Your task to perform on an android device: delete location history Image 0: 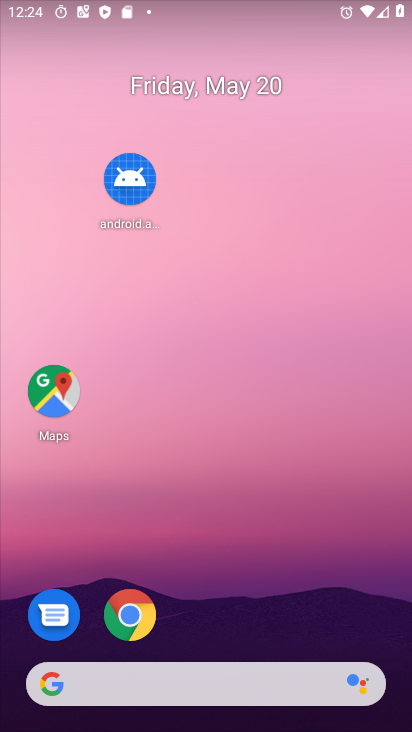
Step 0: drag from (304, 595) to (261, 110)
Your task to perform on an android device: delete location history Image 1: 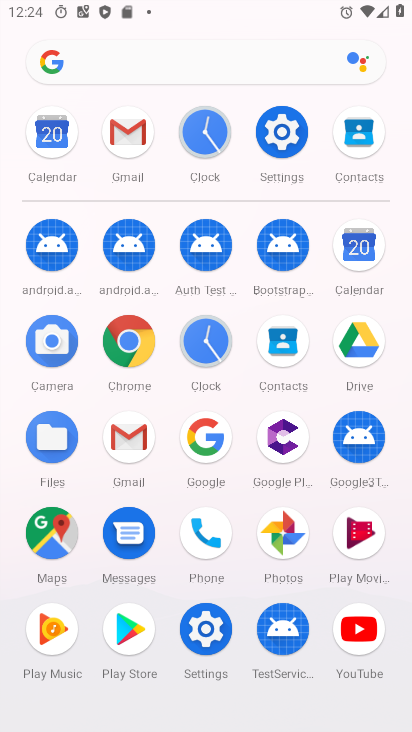
Step 1: click (209, 642)
Your task to perform on an android device: delete location history Image 2: 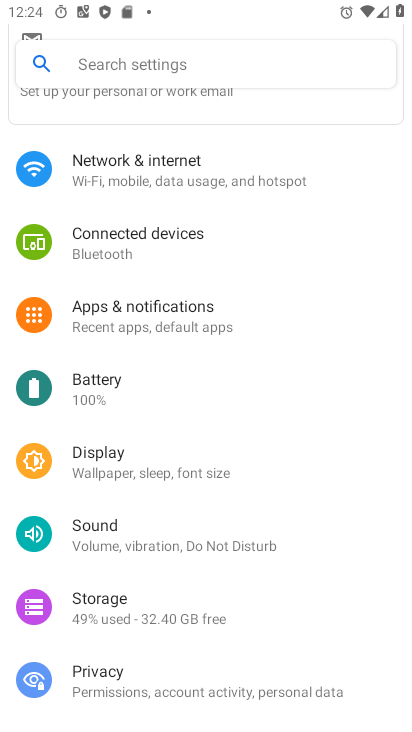
Step 2: drag from (233, 558) to (203, 412)
Your task to perform on an android device: delete location history Image 3: 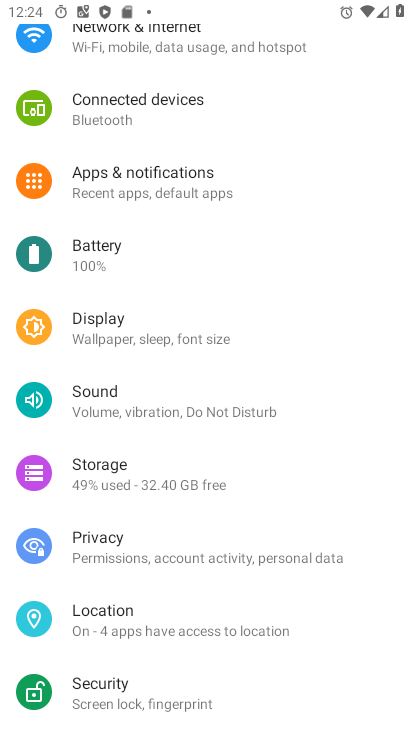
Step 3: click (103, 605)
Your task to perform on an android device: delete location history Image 4: 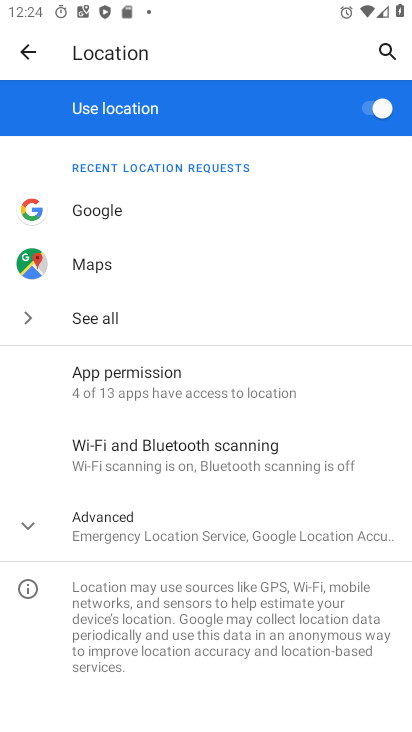
Step 4: click (213, 540)
Your task to perform on an android device: delete location history Image 5: 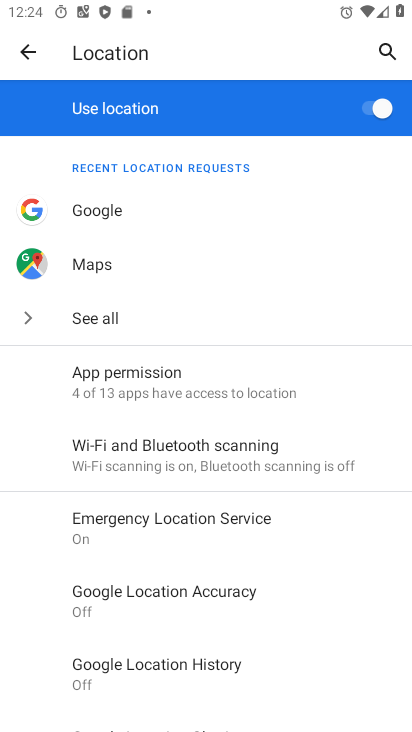
Step 5: click (266, 668)
Your task to perform on an android device: delete location history Image 6: 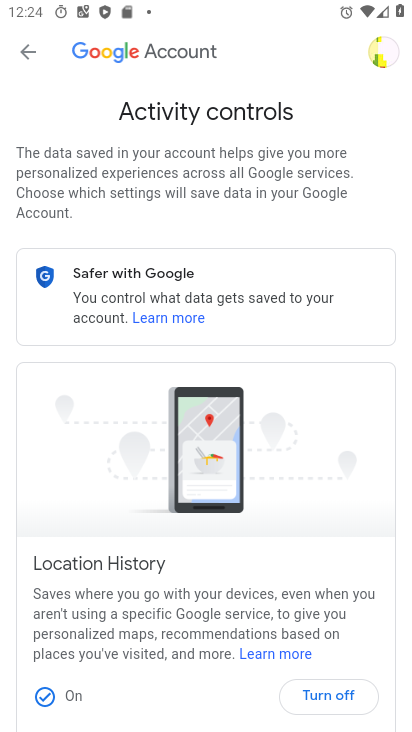
Step 6: drag from (272, 631) to (244, 432)
Your task to perform on an android device: delete location history Image 7: 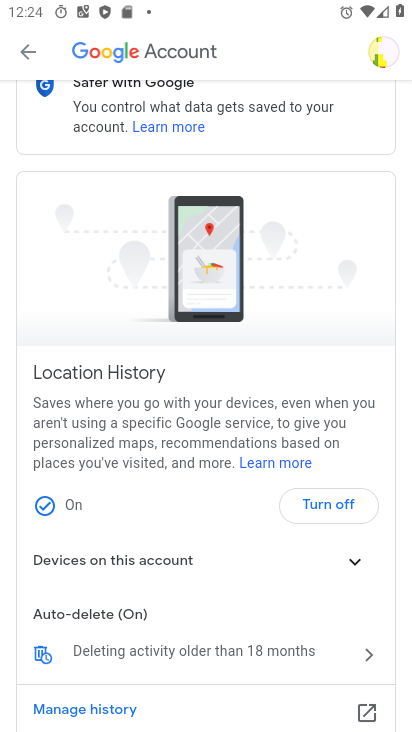
Step 7: drag from (217, 518) to (170, 305)
Your task to perform on an android device: delete location history Image 8: 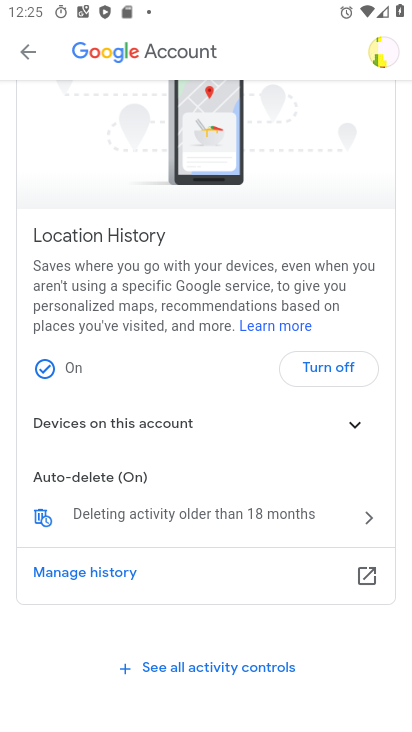
Step 8: click (112, 575)
Your task to perform on an android device: delete location history Image 9: 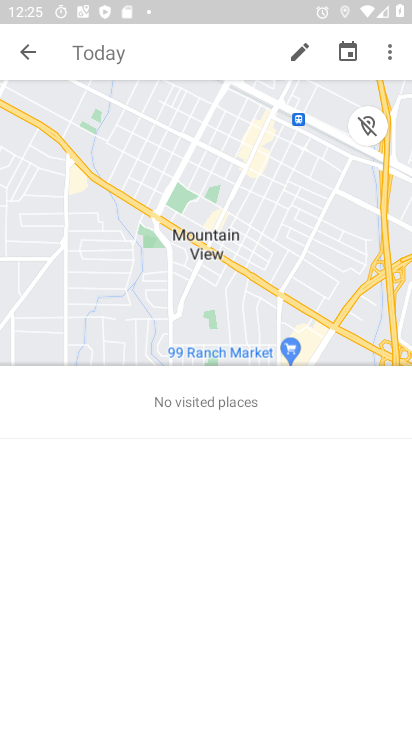
Step 9: click (390, 61)
Your task to perform on an android device: delete location history Image 10: 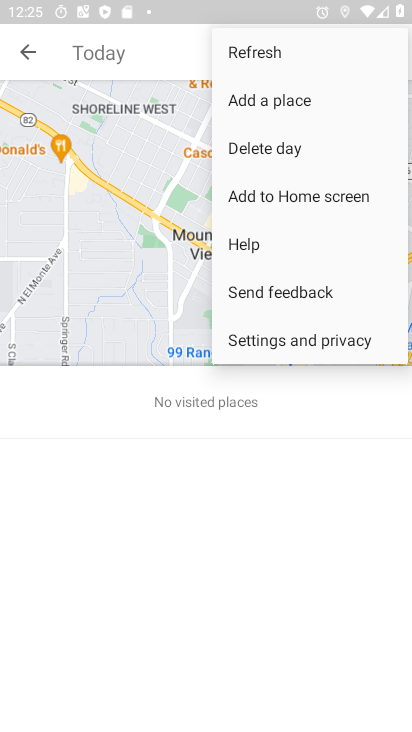
Step 10: click (301, 150)
Your task to perform on an android device: delete location history Image 11: 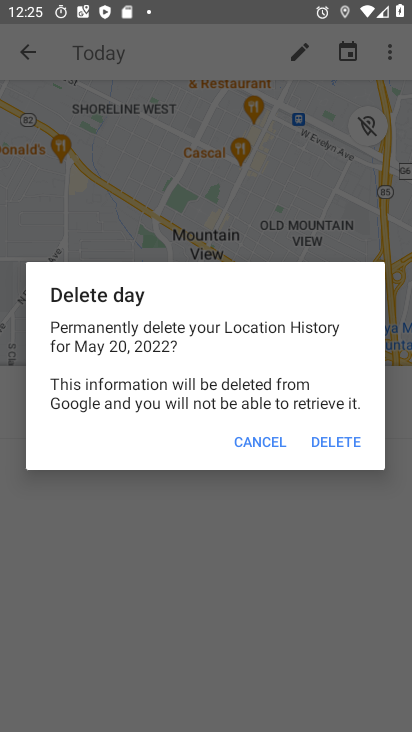
Step 11: click (341, 446)
Your task to perform on an android device: delete location history Image 12: 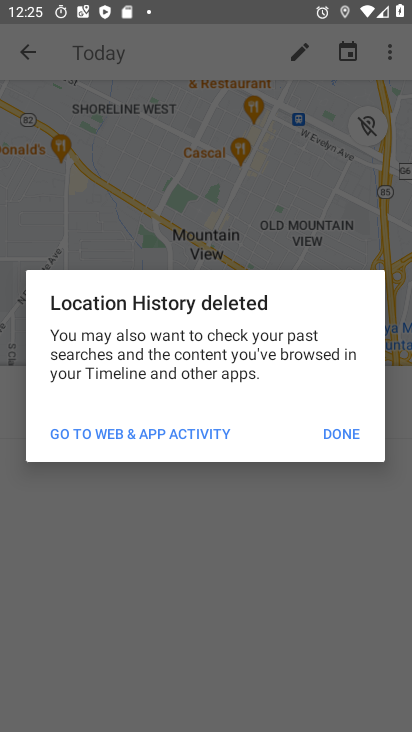
Step 12: task complete